Your task to perform on an android device: Open settings on Google Maps Image 0: 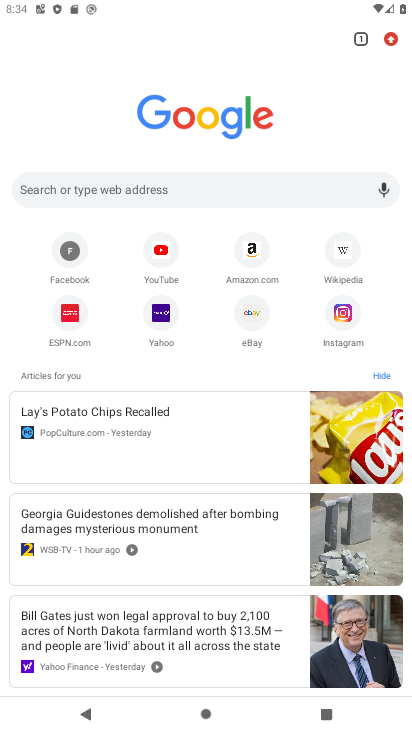
Step 0: press home button
Your task to perform on an android device: Open settings on Google Maps Image 1: 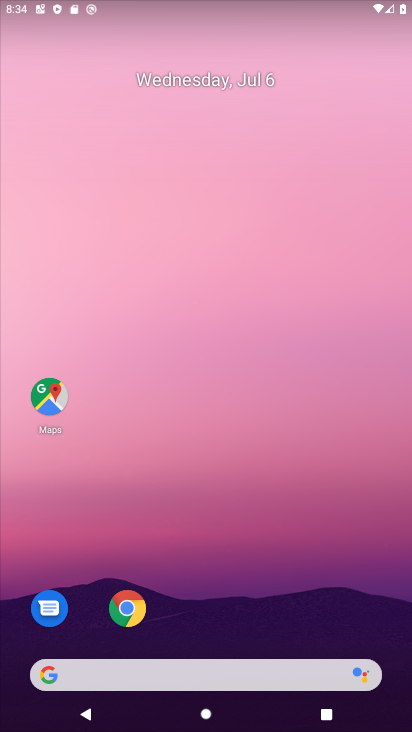
Step 1: drag from (194, 664) to (244, 150)
Your task to perform on an android device: Open settings on Google Maps Image 2: 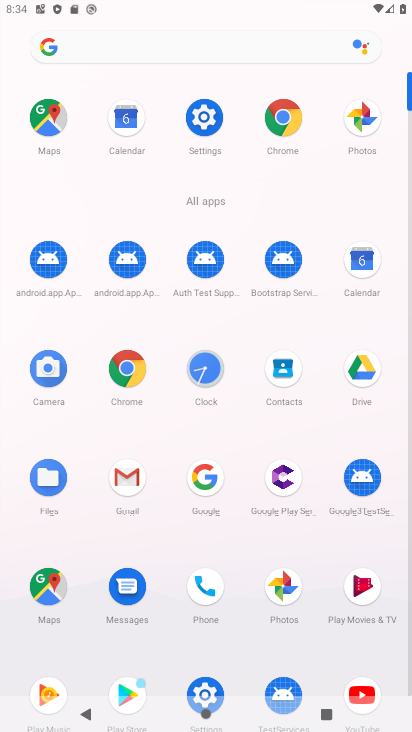
Step 2: click (45, 590)
Your task to perform on an android device: Open settings on Google Maps Image 3: 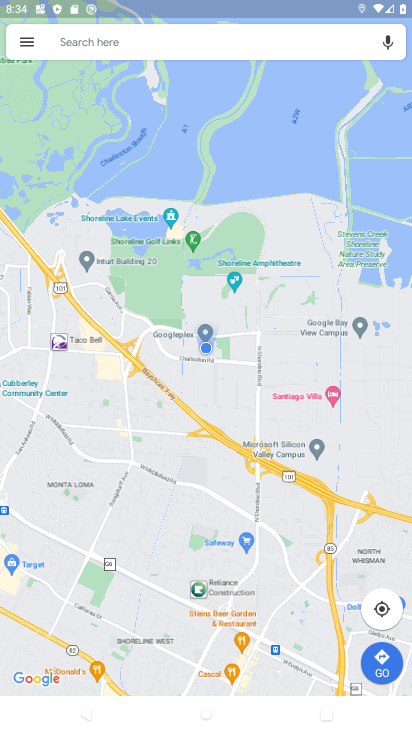
Step 3: click (24, 38)
Your task to perform on an android device: Open settings on Google Maps Image 4: 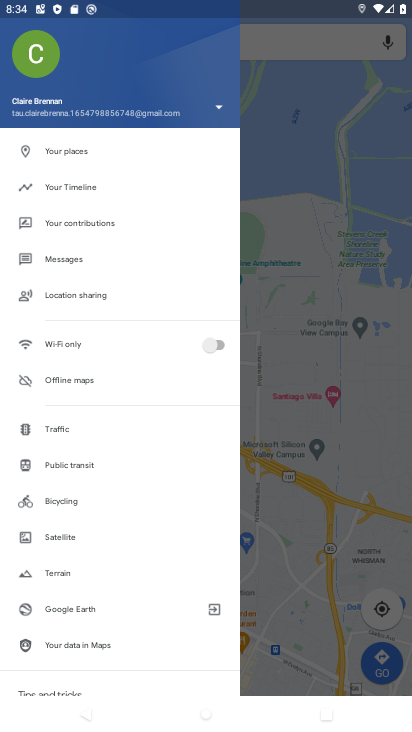
Step 4: drag from (70, 667) to (123, 279)
Your task to perform on an android device: Open settings on Google Maps Image 5: 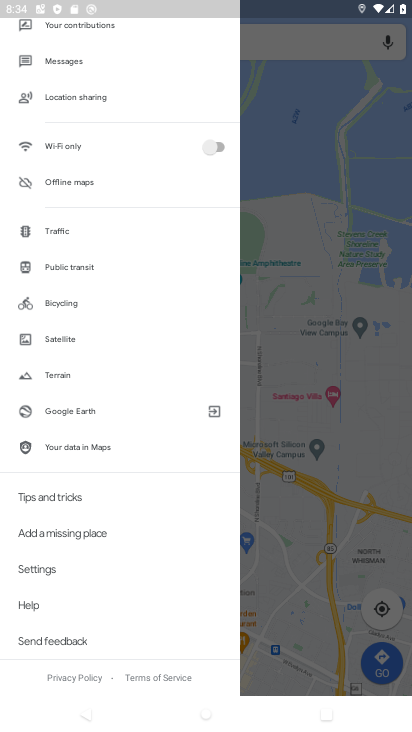
Step 5: click (36, 566)
Your task to perform on an android device: Open settings on Google Maps Image 6: 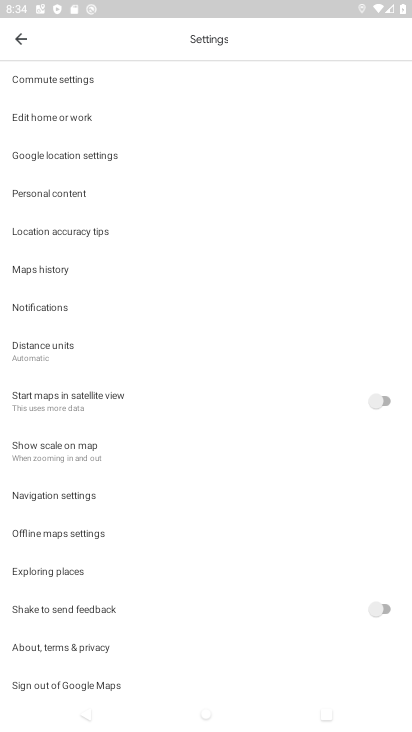
Step 6: task complete